Your task to perform on an android device: change the clock display to analog Image 0: 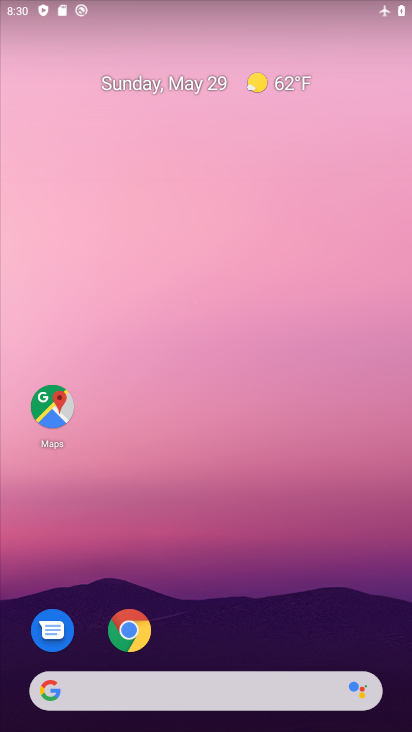
Step 0: drag from (401, 715) to (391, 95)
Your task to perform on an android device: change the clock display to analog Image 1: 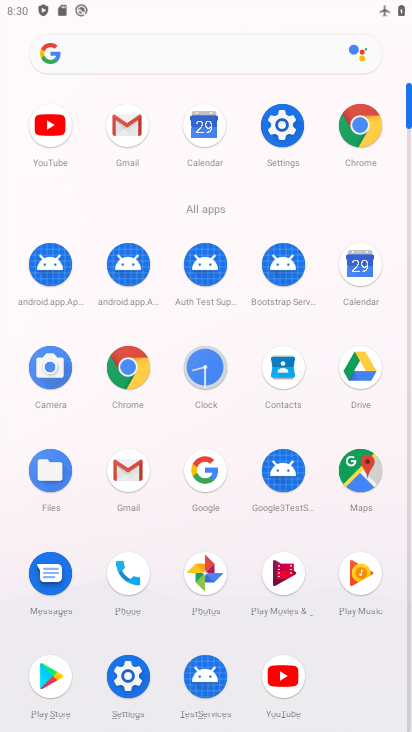
Step 1: click (192, 369)
Your task to perform on an android device: change the clock display to analog Image 2: 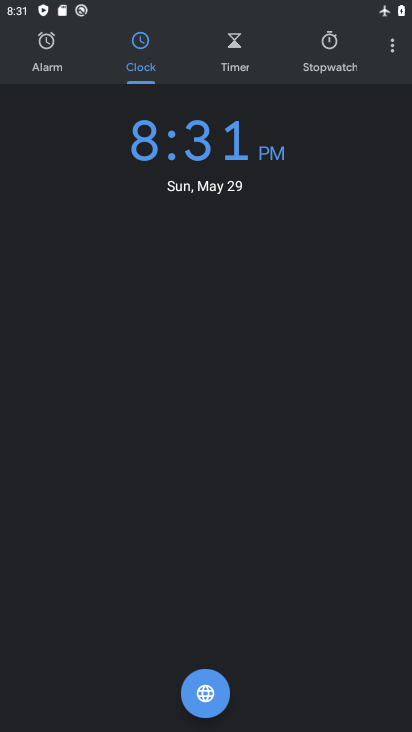
Step 2: click (393, 49)
Your task to perform on an android device: change the clock display to analog Image 3: 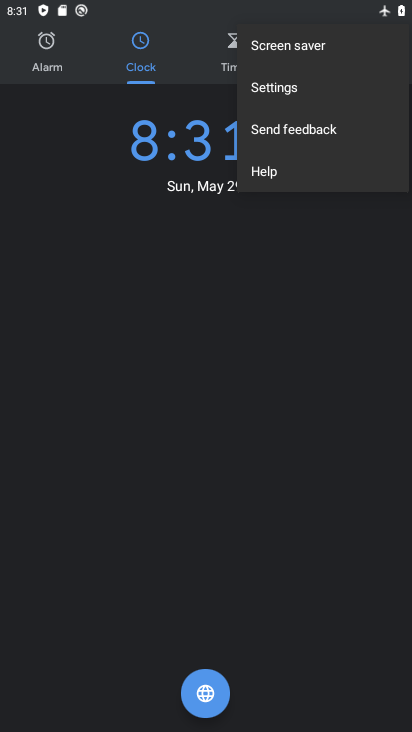
Step 3: click (244, 87)
Your task to perform on an android device: change the clock display to analog Image 4: 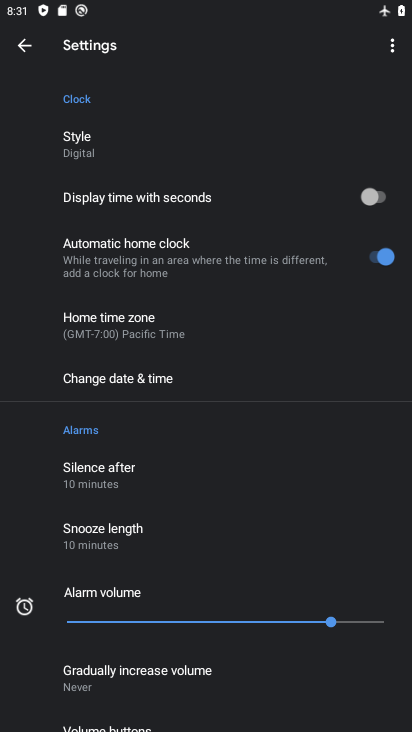
Step 4: click (90, 150)
Your task to perform on an android device: change the clock display to analog Image 5: 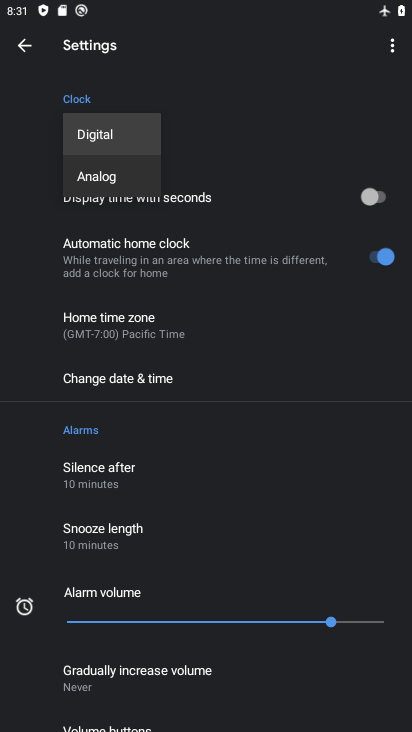
Step 5: click (105, 176)
Your task to perform on an android device: change the clock display to analog Image 6: 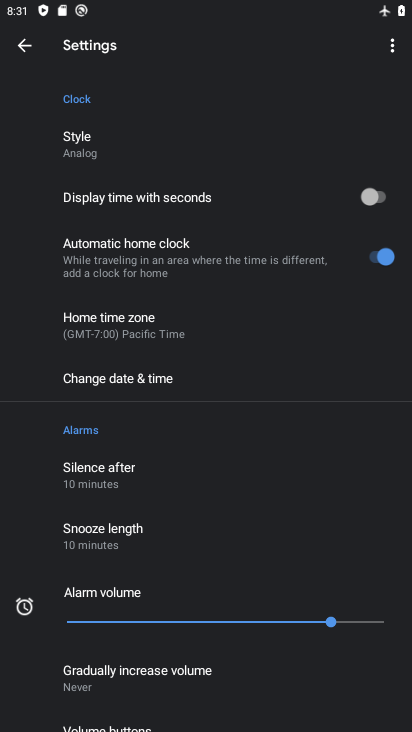
Step 6: task complete